Your task to perform on an android device: Go to Maps Image 0: 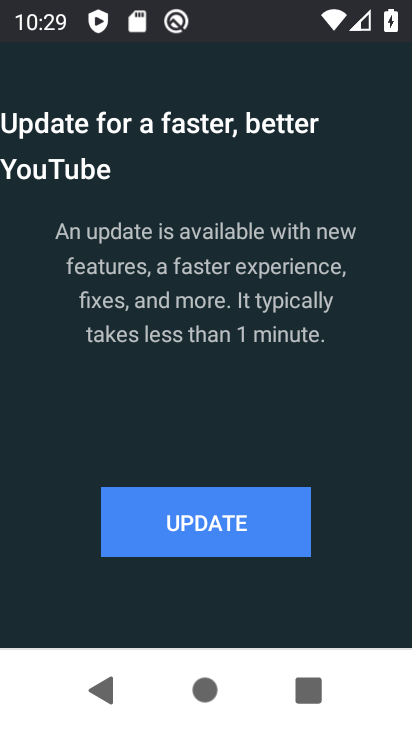
Step 0: press home button
Your task to perform on an android device: Go to Maps Image 1: 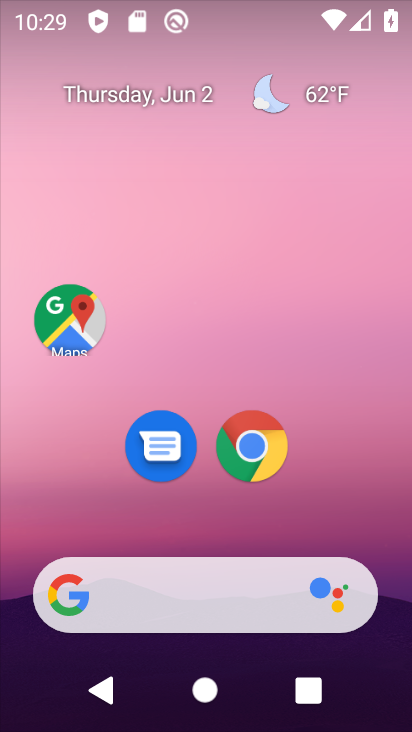
Step 1: click (62, 321)
Your task to perform on an android device: Go to Maps Image 2: 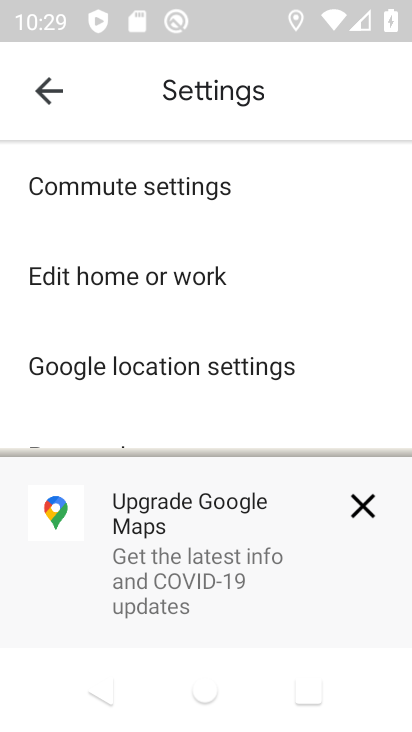
Step 2: task complete